Your task to perform on an android device: open app "Expedia: Hotels, Flights & Car" (install if not already installed) and go to login screen Image 0: 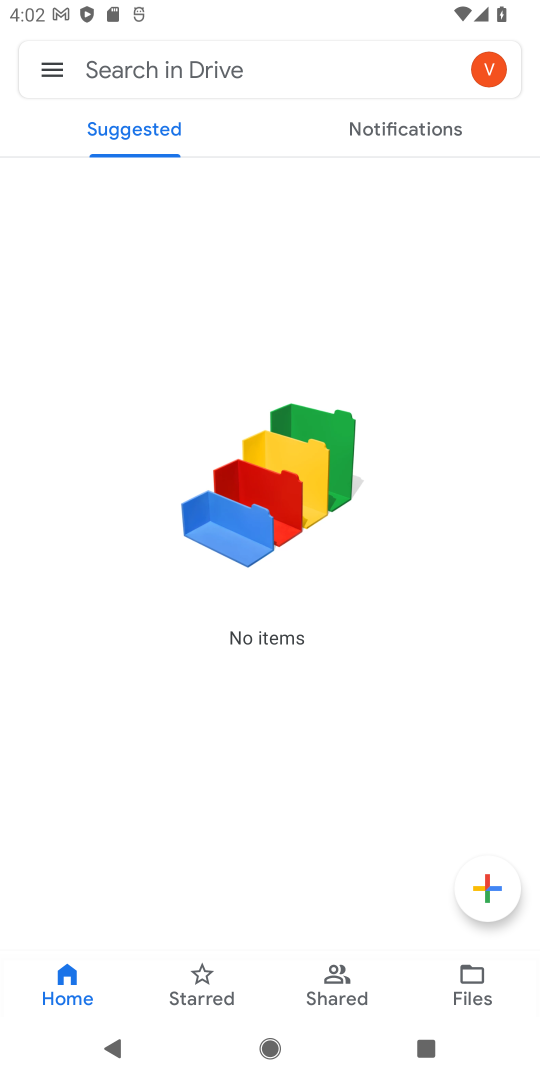
Step 0: press home button
Your task to perform on an android device: open app "Expedia: Hotels, Flights & Car" (install if not already installed) and go to login screen Image 1: 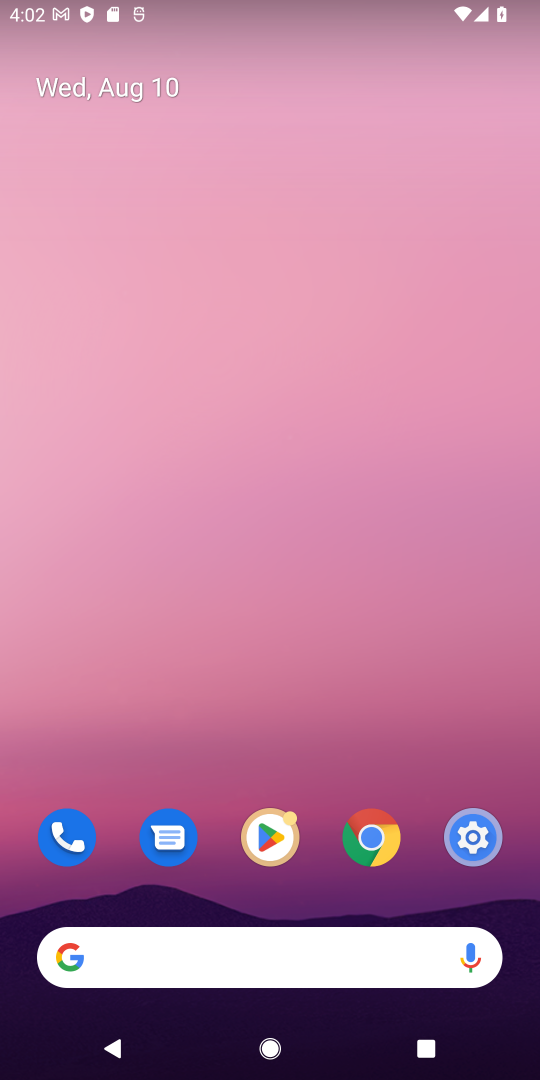
Step 1: click (274, 841)
Your task to perform on an android device: open app "Expedia: Hotels, Flights & Car" (install if not already installed) and go to login screen Image 2: 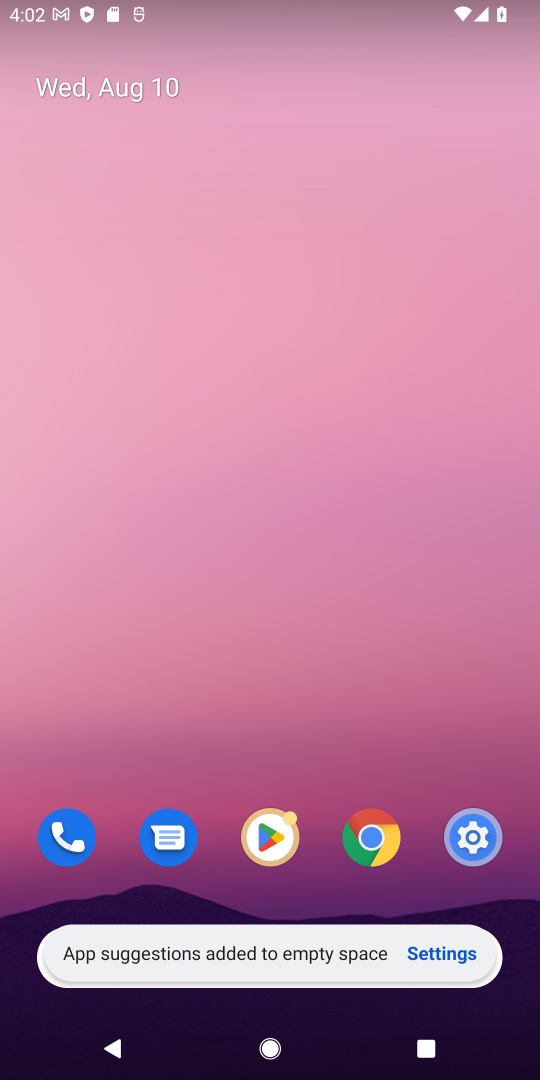
Step 2: click (273, 841)
Your task to perform on an android device: open app "Expedia: Hotels, Flights & Car" (install if not already installed) and go to login screen Image 3: 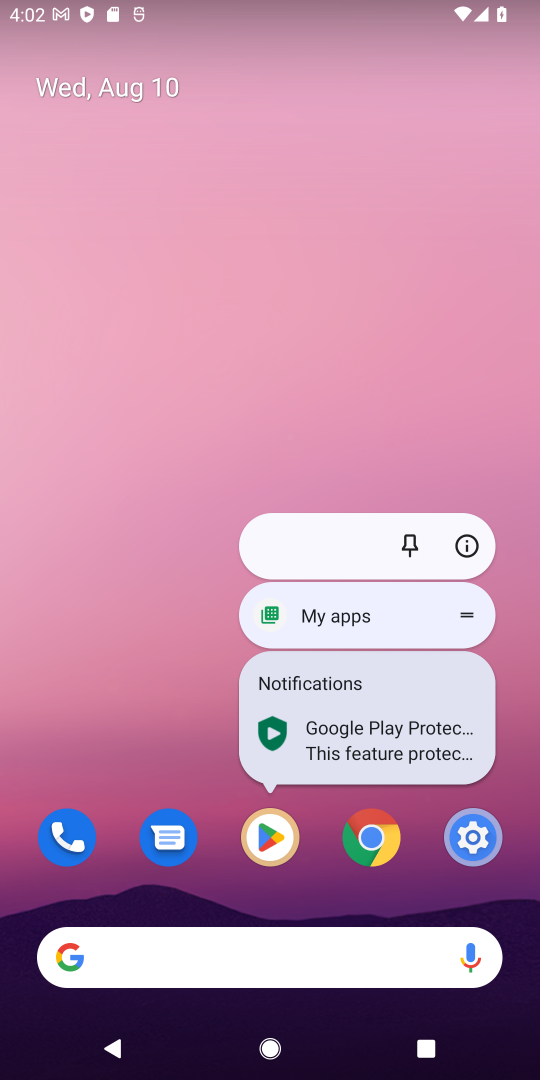
Step 3: click (273, 840)
Your task to perform on an android device: open app "Expedia: Hotels, Flights & Car" (install if not already installed) and go to login screen Image 4: 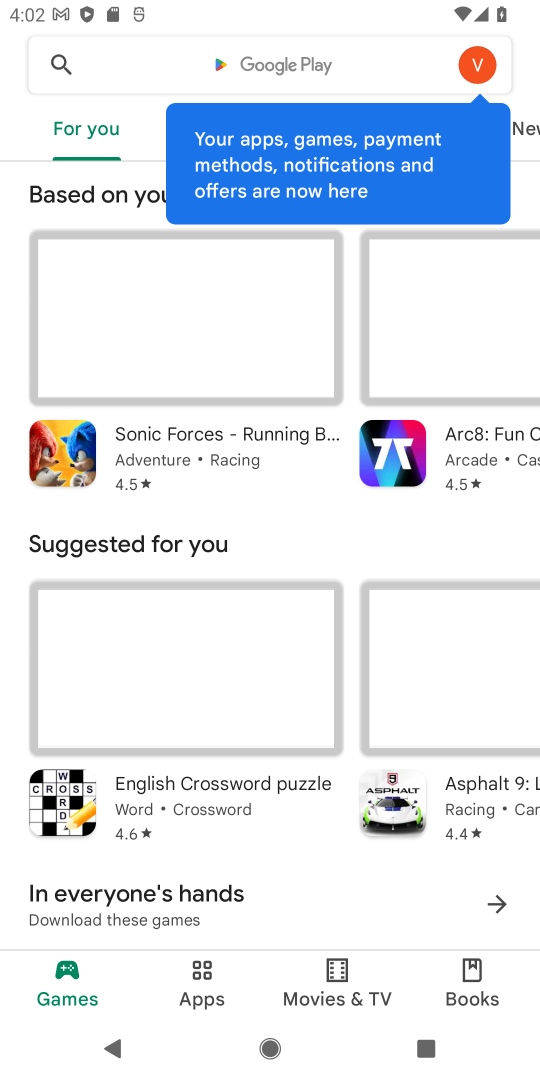
Step 4: click (273, 58)
Your task to perform on an android device: open app "Expedia: Hotels, Flights & Car" (install if not already installed) and go to login screen Image 5: 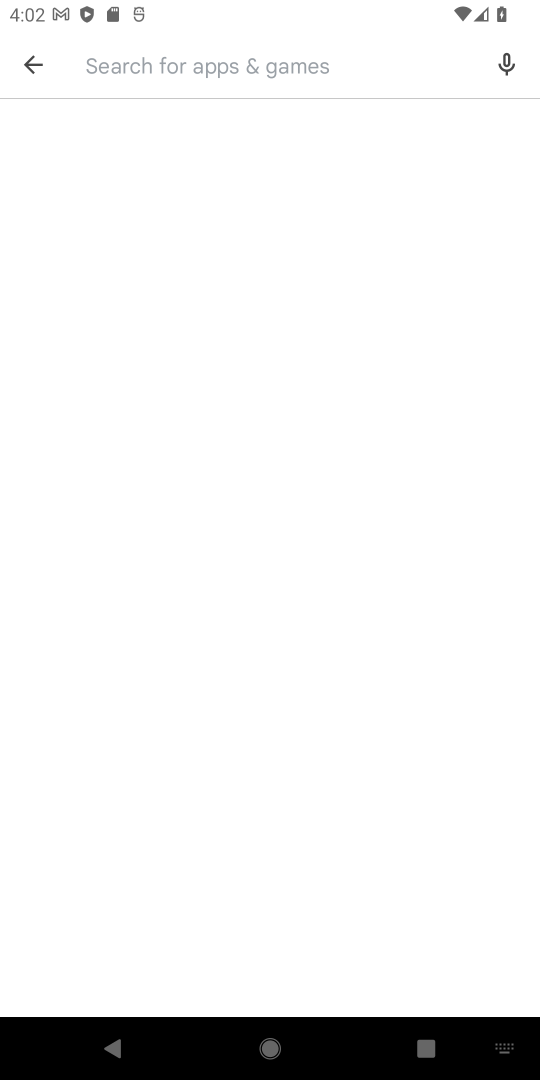
Step 5: type "Expedia: Hotels, Flights & Car"
Your task to perform on an android device: open app "Expedia: Hotels, Flights & Car" (install if not already installed) and go to login screen Image 6: 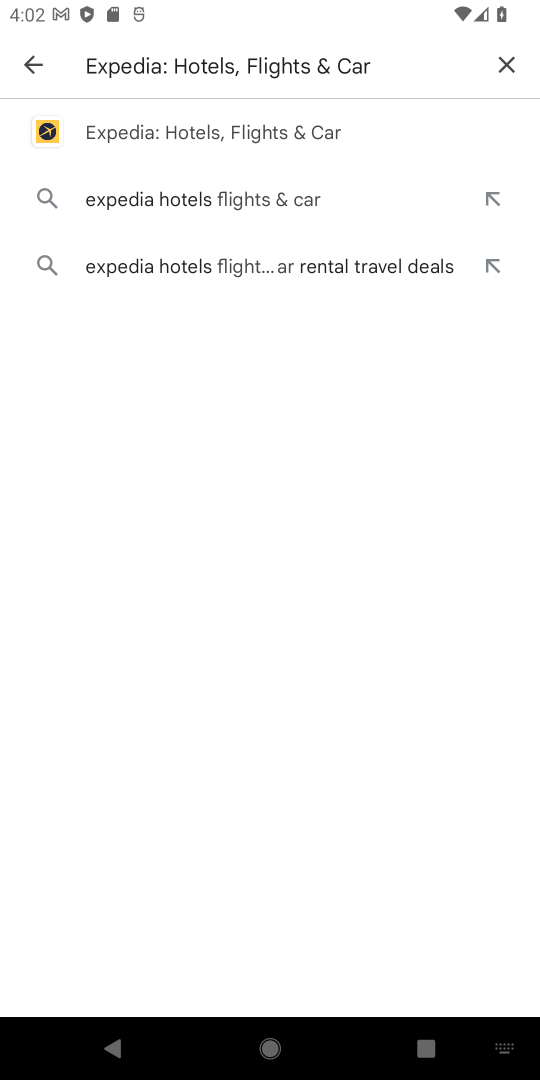
Step 6: click (251, 138)
Your task to perform on an android device: open app "Expedia: Hotels, Flights & Car" (install if not already installed) and go to login screen Image 7: 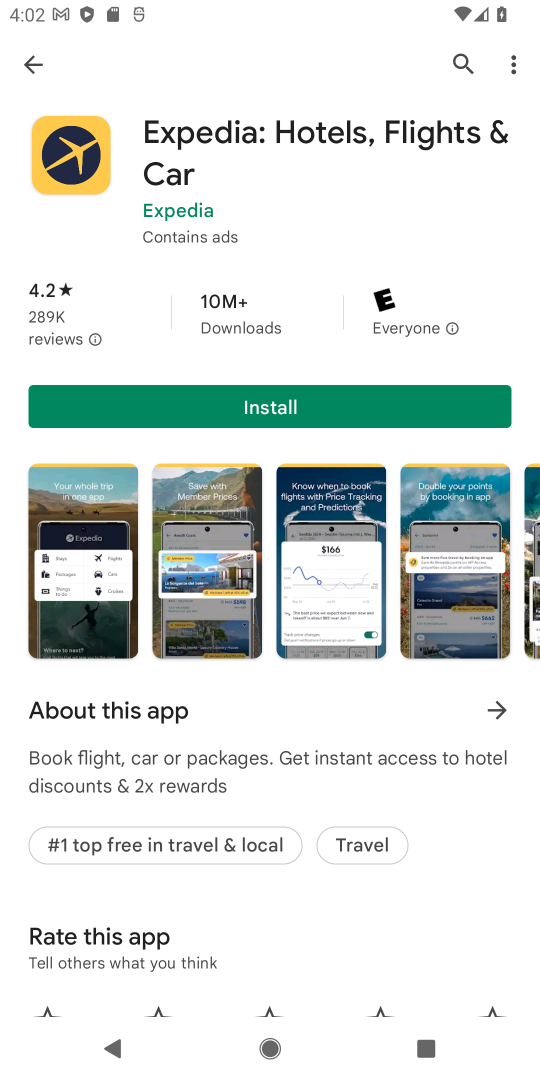
Step 7: click (299, 409)
Your task to perform on an android device: open app "Expedia: Hotels, Flights & Car" (install if not already installed) and go to login screen Image 8: 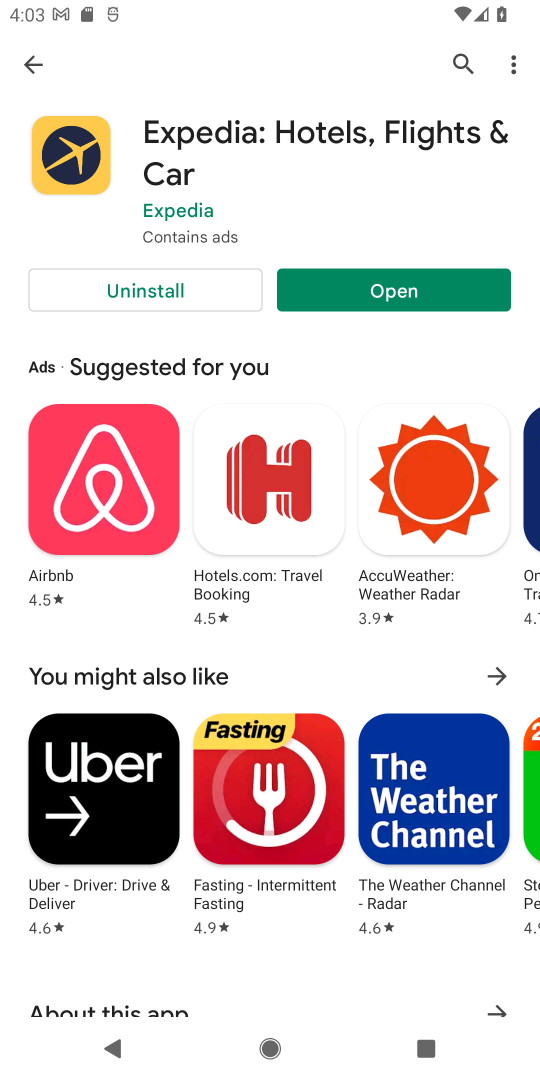
Step 8: click (413, 284)
Your task to perform on an android device: open app "Expedia: Hotels, Flights & Car" (install if not already installed) and go to login screen Image 9: 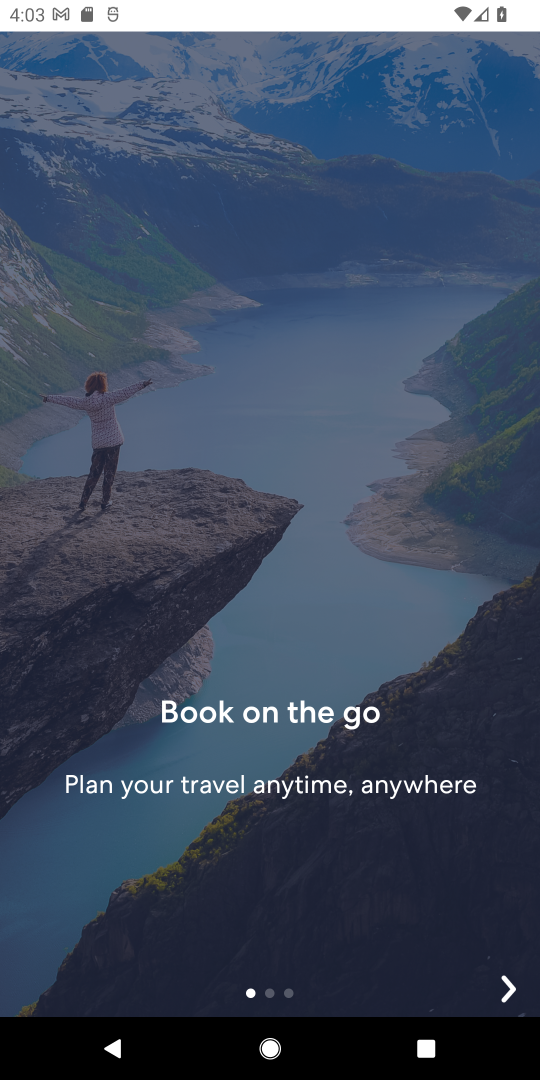
Step 9: click (505, 984)
Your task to perform on an android device: open app "Expedia: Hotels, Flights & Car" (install if not already installed) and go to login screen Image 10: 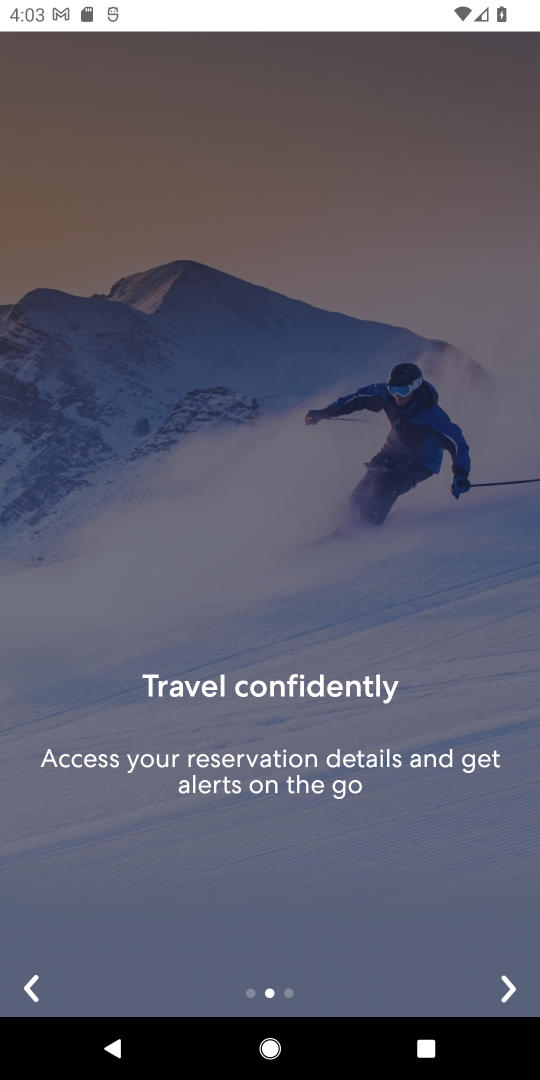
Step 10: click (502, 987)
Your task to perform on an android device: open app "Expedia: Hotels, Flights & Car" (install if not already installed) and go to login screen Image 11: 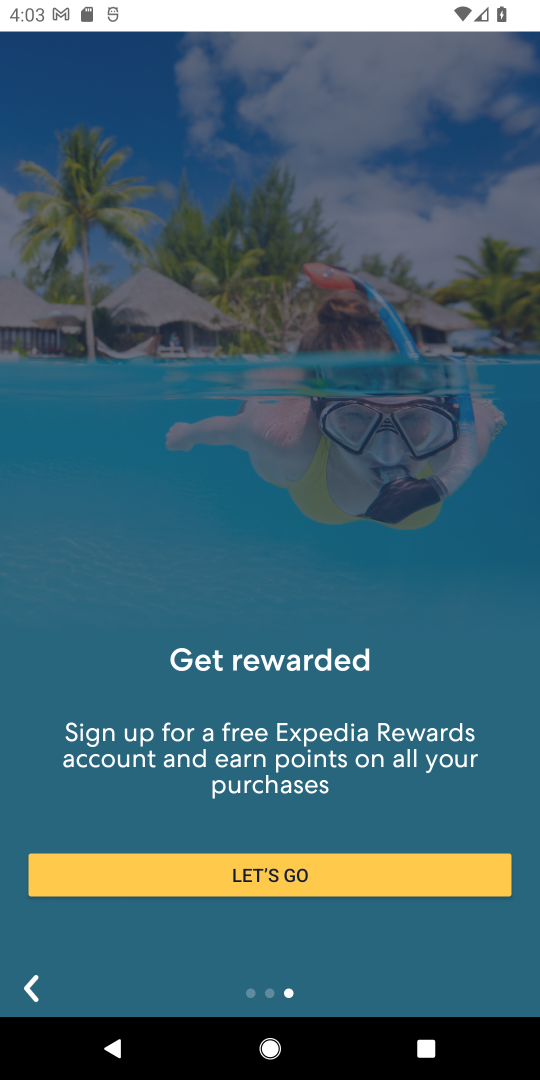
Step 11: click (502, 987)
Your task to perform on an android device: open app "Expedia: Hotels, Flights & Car" (install if not already installed) and go to login screen Image 12: 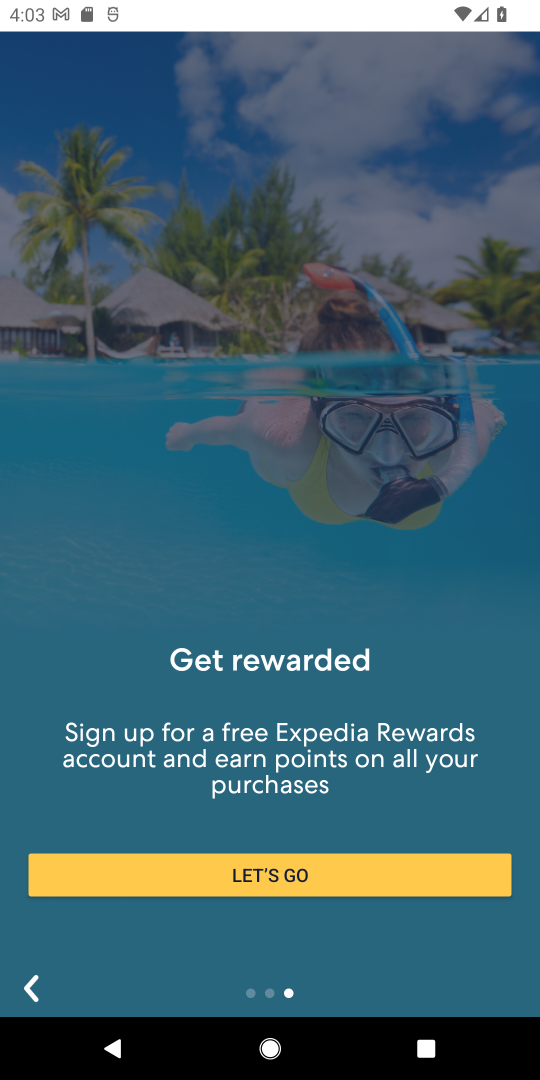
Step 12: click (343, 876)
Your task to perform on an android device: open app "Expedia: Hotels, Flights & Car" (install if not already installed) and go to login screen Image 13: 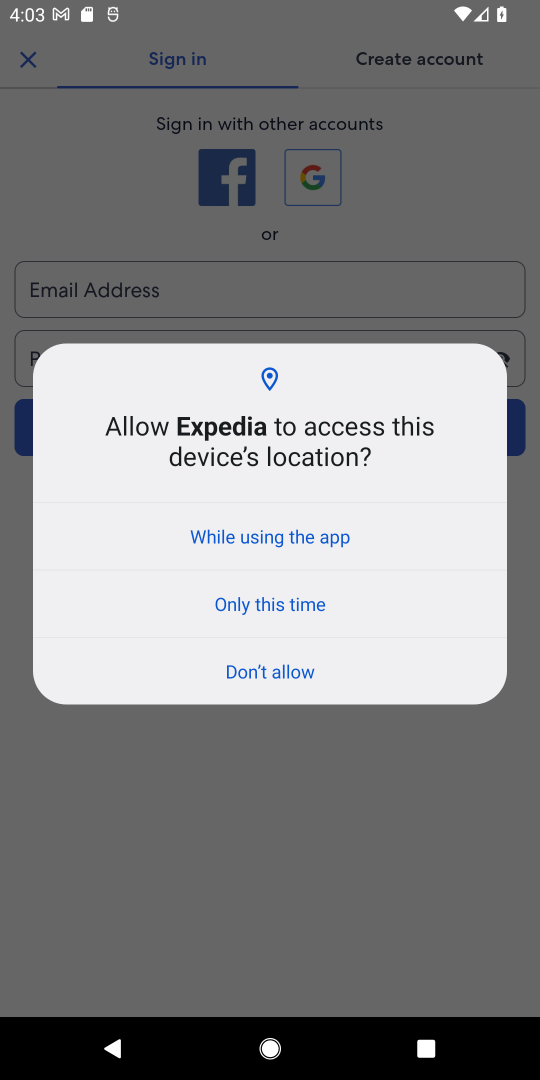
Step 13: click (285, 873)
Your task to perform on an android device: open app "Expedia: Hotels, Flights & Car" (install if not already installed) and go to login screen Image 14: 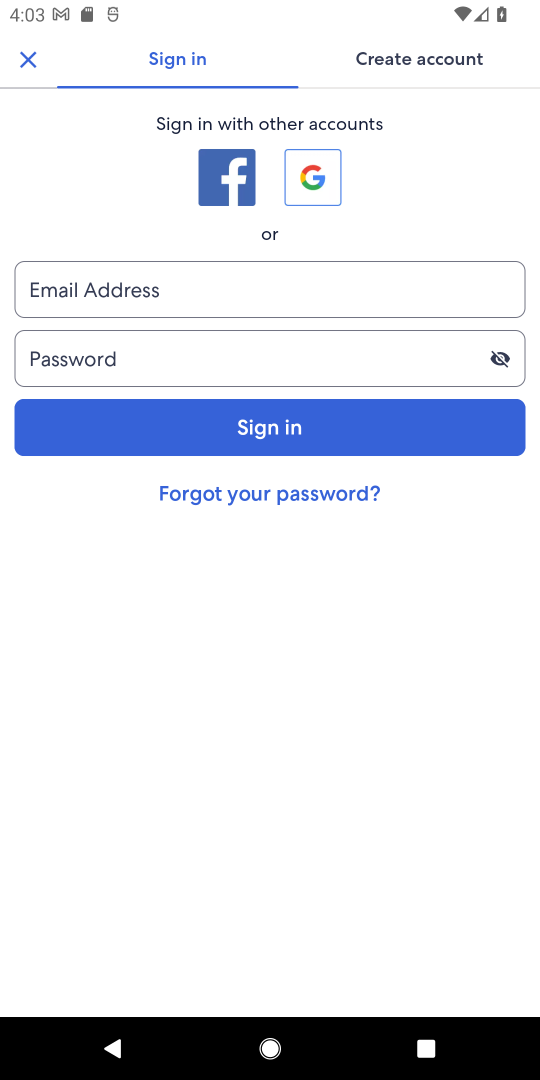
Step 14: task complete